Your task to perform on an android device: turn off picture-in-picture Image 0: 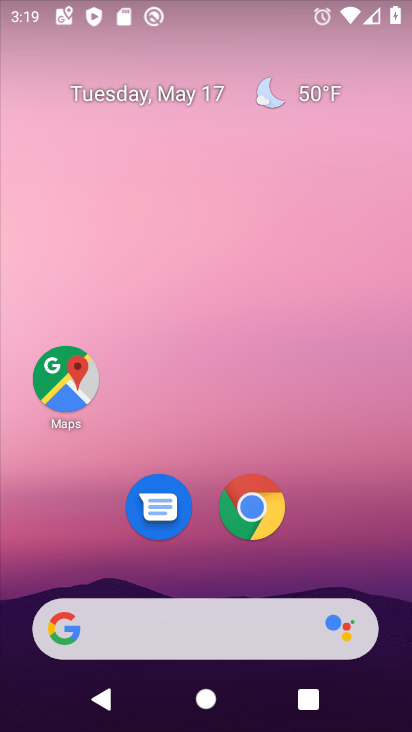
Step 0: drag from (312, 426) to (201, 1)
Your task to perform on an android device: turn off picture-in-picture Image 1: 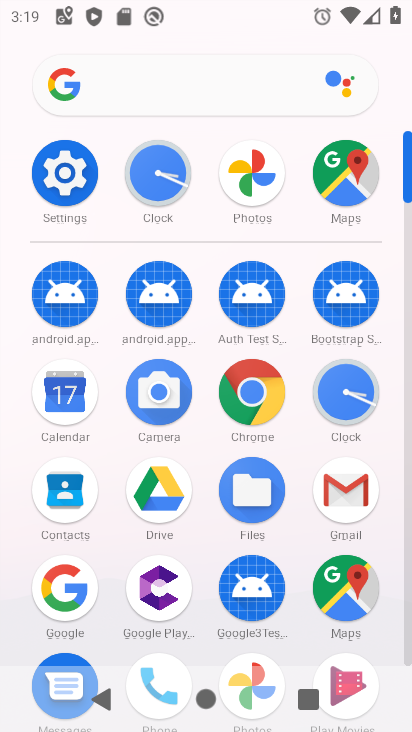
Step 1: click (48, 173)
Your task to perform on an android device: turn off picture-in-picture Image 2: 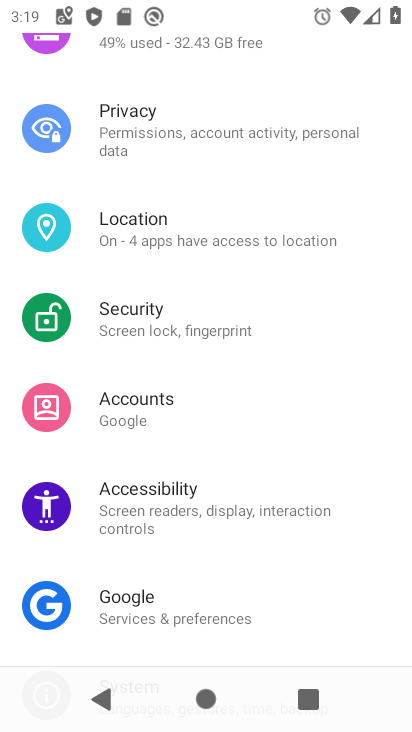
Step 2: drag from (260, 197) to (221, 645)
Your task to perform on an android device: turn off picture-in-picture Image 3: 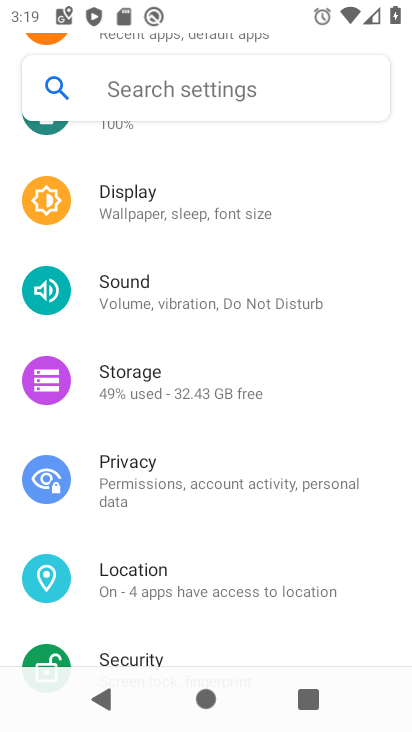
Step 3: drag from (217, 176) to (216, 546)
Your task to perform on an android device: turn off picture-in-picture Image 4: 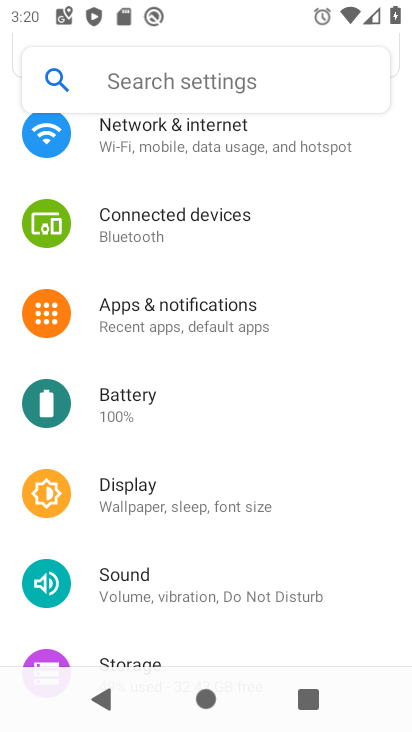
Step 4: click (219, 304)
Your task to perform on an android device: turn off picture-in-picture Image 5: 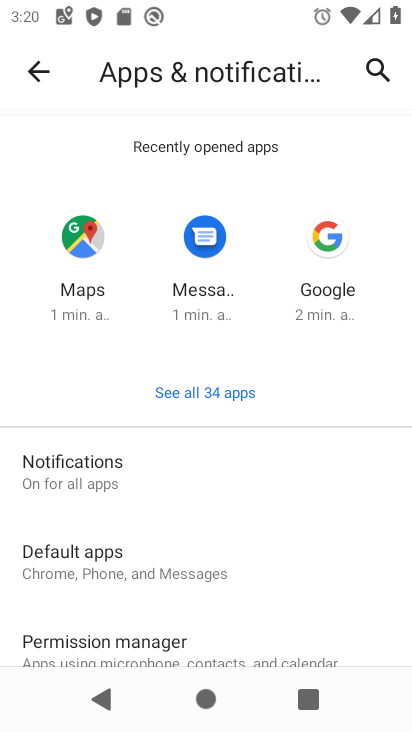
Step 5: drag from (228, 544) to (238, 129)
Your task to perform on an android device: turn off picture-in-picture Image 6: 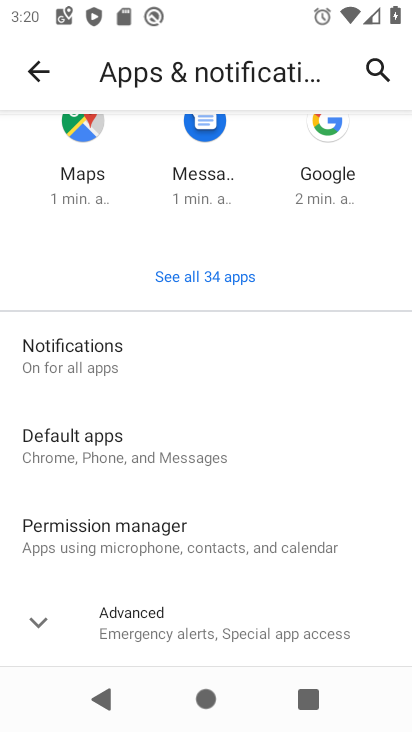
Step 6: click (209, 617)
Your task to perform on an android device: turn off picture-in-picture Image 7: 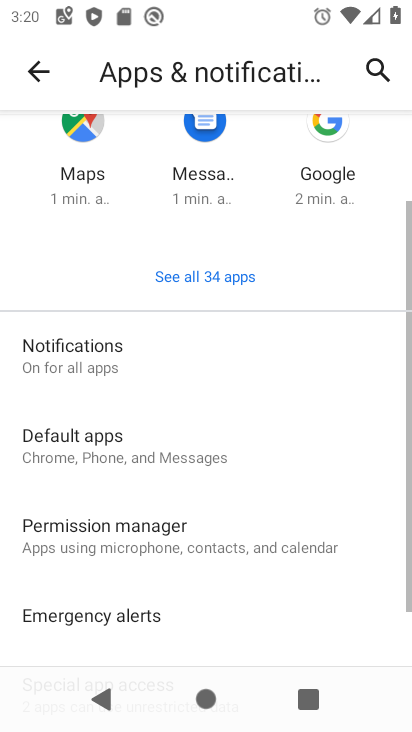
Step 7: drag from (223, 598) to (174, 200)
Your task to perform on an android device: turn off picture-in-picture Image 8: 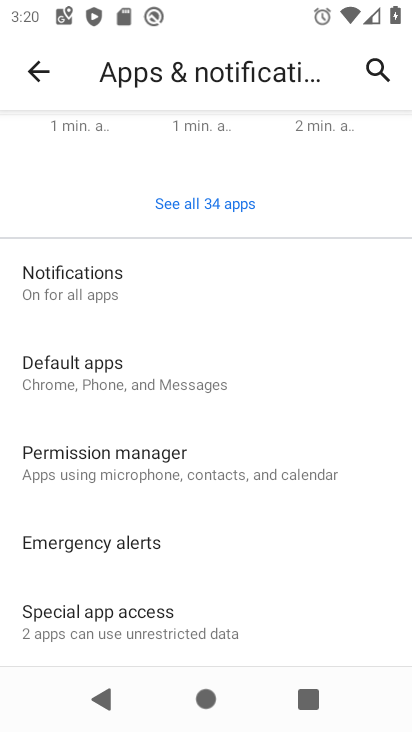
Step 8: click (178, 627)
Your task to perform on an android device: turn off picture-in-picture Image 9: 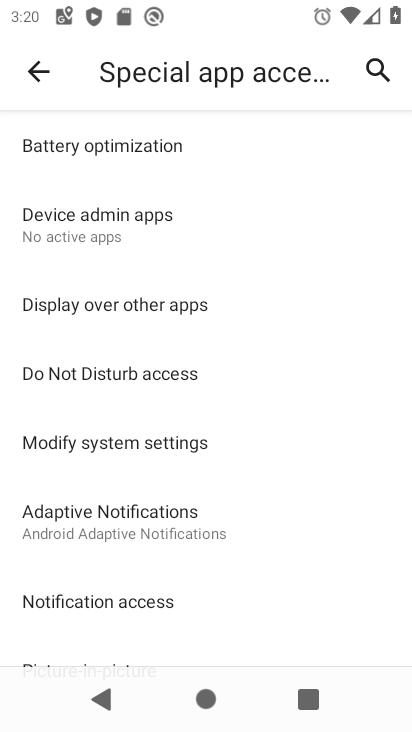
Step 9: drag from (194, 437) to (183, 210)
Your task to perform on an android device: turn off picture-in-picture Image 10: 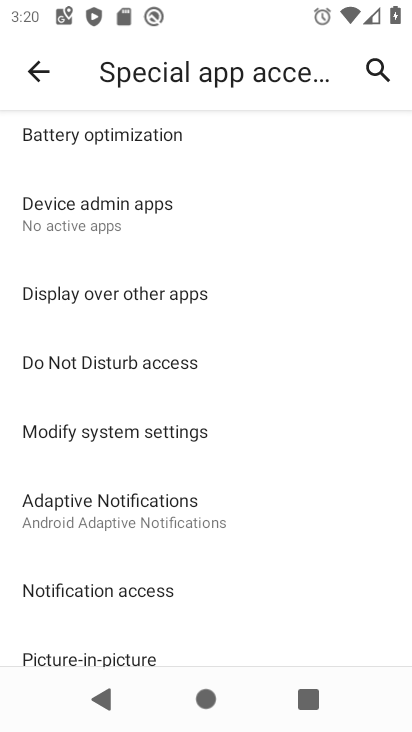
Step 10: click (173, 654)
Your task to perform on an android device: turn off picture-in-picture Image 11: 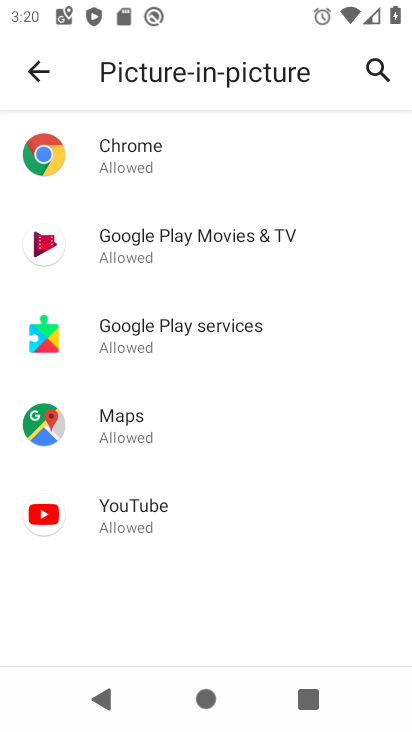
Step 11: click (248, 178)
Your task to perform on an android device: turn off picture-in-picture Image 12: 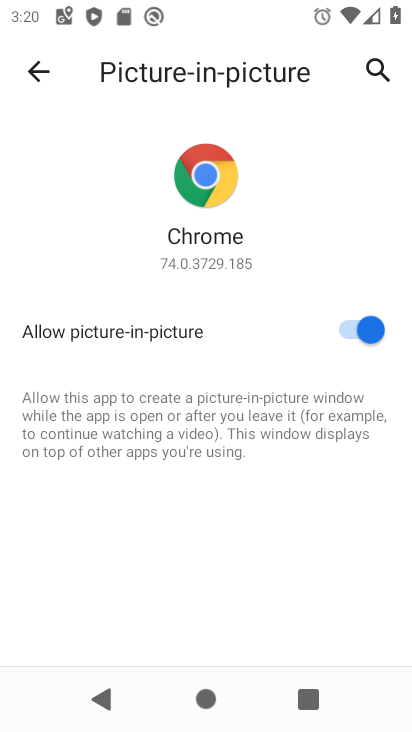
Step 12: click (364, 322)
Your task to perform on an android device: turn off picture-in-picture Image 13: 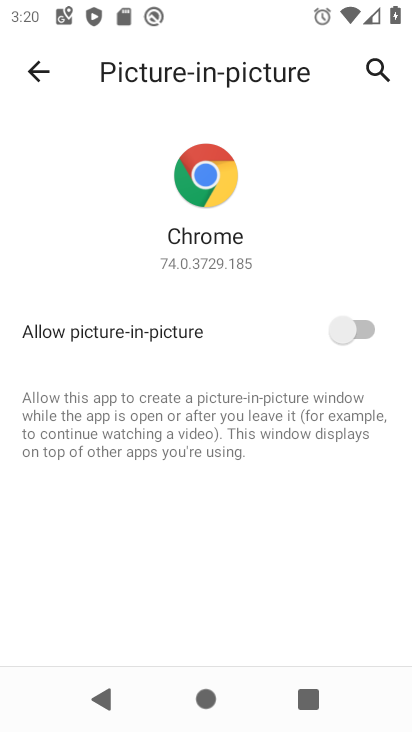
Step 13: task complete